Your task to perform on an android device: turn off location Image 0: 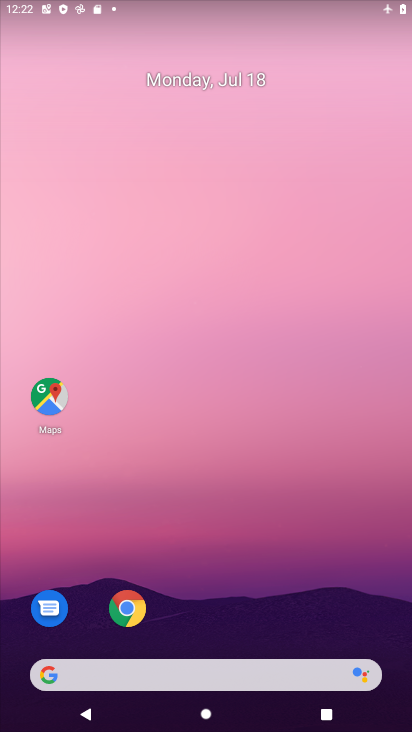
Step 0: drag from (376, 639) to (177, 42)
Your task to perform on an android device: turn off location Image 1: 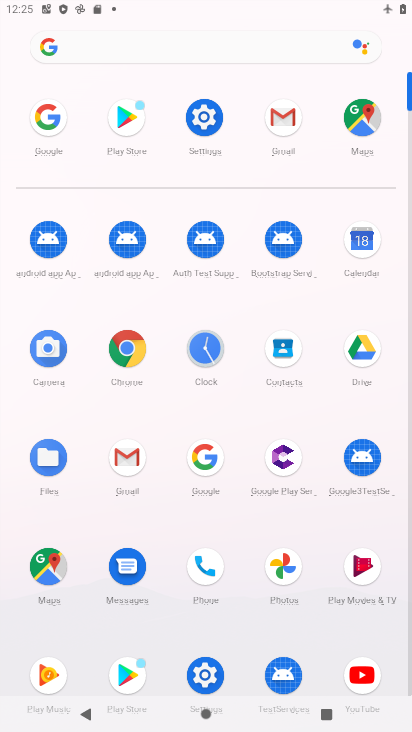
Step 1: click (205, 681)
Your task to perform on an android device: turn off location Image 2: 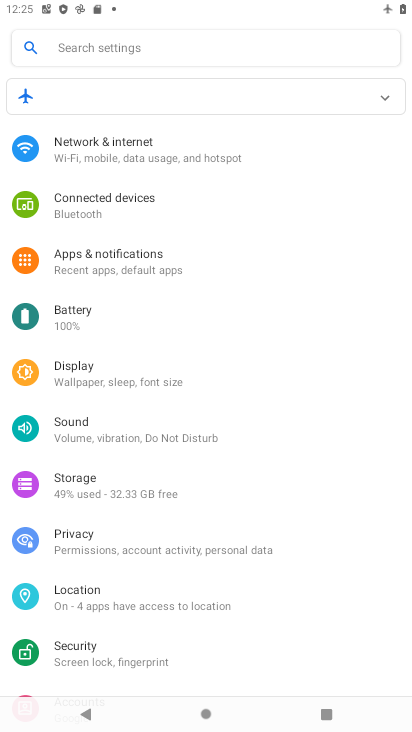
Step 2: click (100, 595)
Your task to perform on an android device: turn off location Image 3: 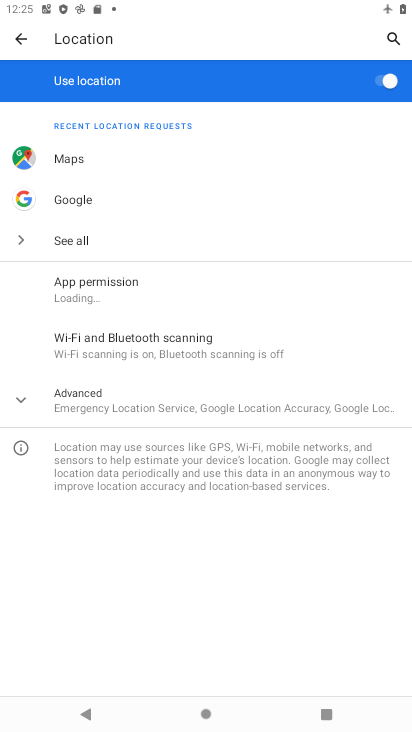
Step 3: click (341, 83)
Your task to perform on an android device: turn off location Image 4: 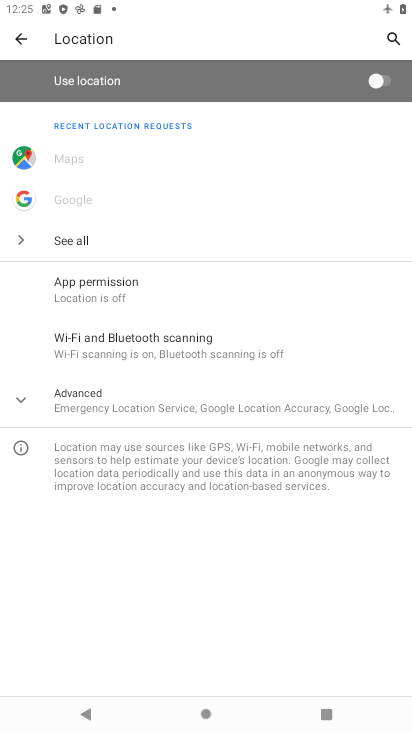
Step 4: task complete